Your task to perform on an android device: turn off airplane mode Image 0: 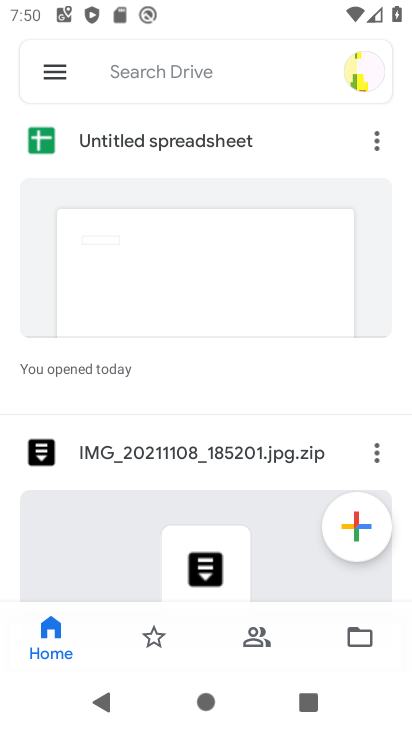
Step 0: press home button
Your task to perform on an android device: turn off airplane mode Image 1: 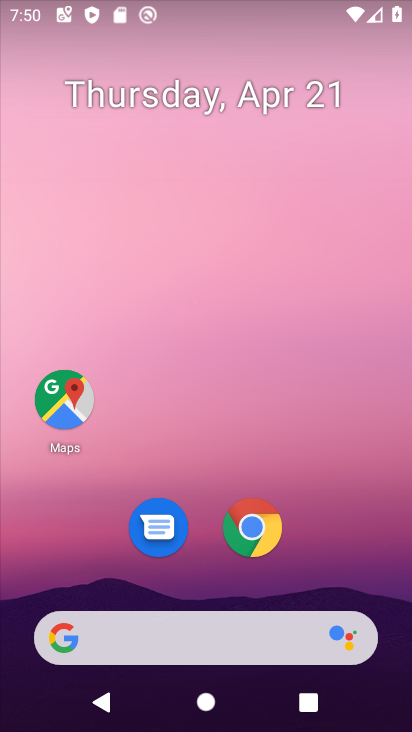
Step 1: drag from (203, 597) to (207, 534)
Your task to perform on an android device: turn off airplane mode Image 2: 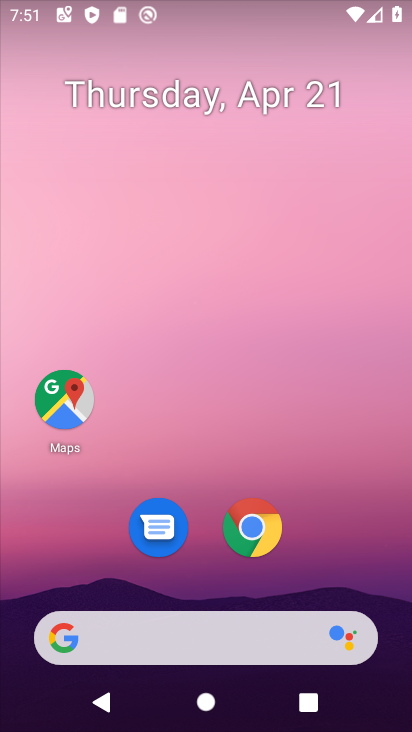
Step 2: drag from (216, 607) to (340, 120)
Your task to perform on an android device: turn off airplane mode Image 3: 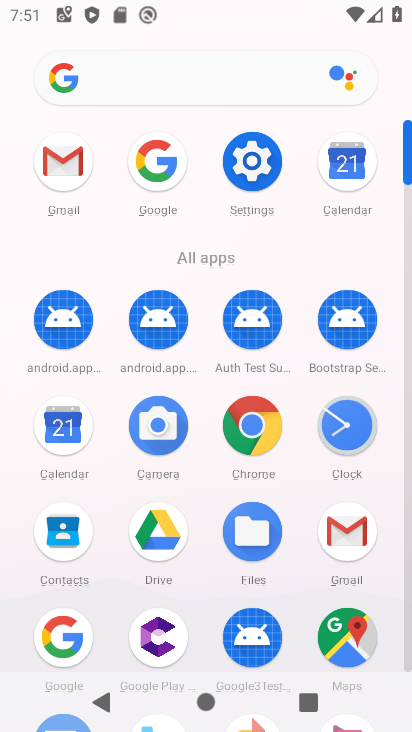
Step 3: click (245, 179)
Your task to perform on an android device: turn off airplane mode Image 4: 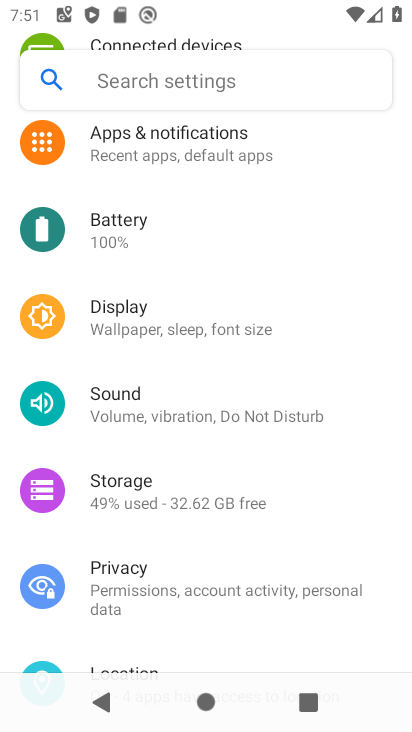
Step 4: drag from (264, 167) to (281, 458)
Your task to perform on an android device: turn off airplane mode Image 5: 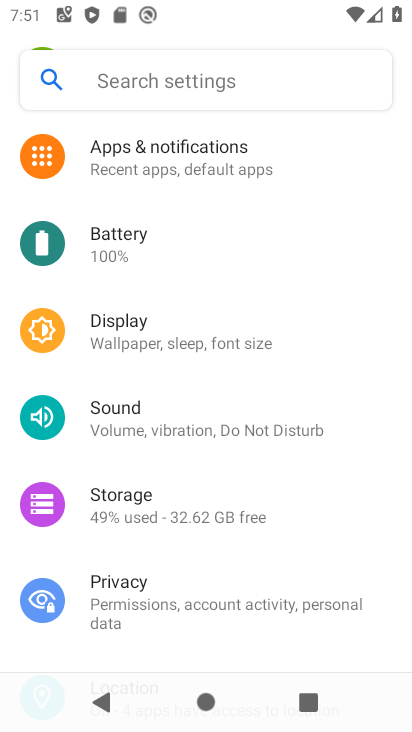
Step 5: drag from (334, 171) to (344, 276)
Your task to perform on an android device: turn off airplane mode Image 6: 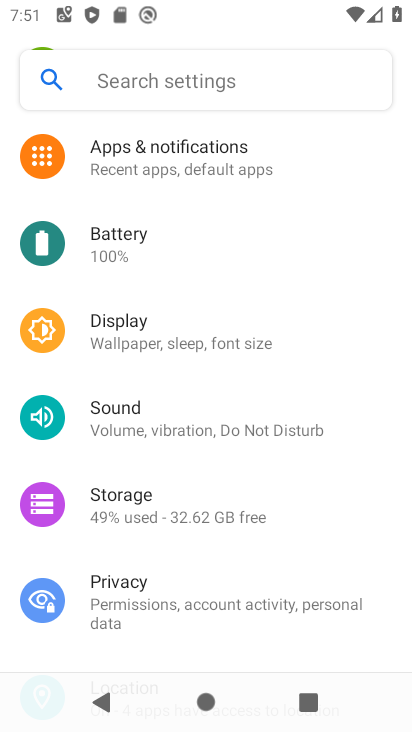
Step 6: drag from (333, 200) to (282, 731)
Your task to perform on an android device: turn off airplane mode Image 7: 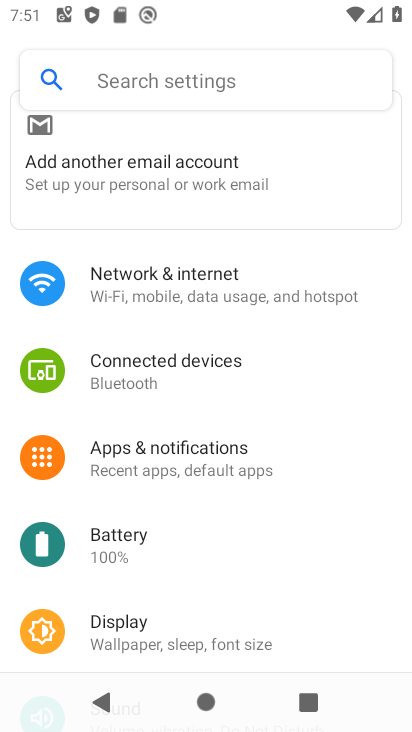
Step 7: drag from (316, 258) to (311, 729)
Your task to perform on an android device: turn off airplane mode Image 8: 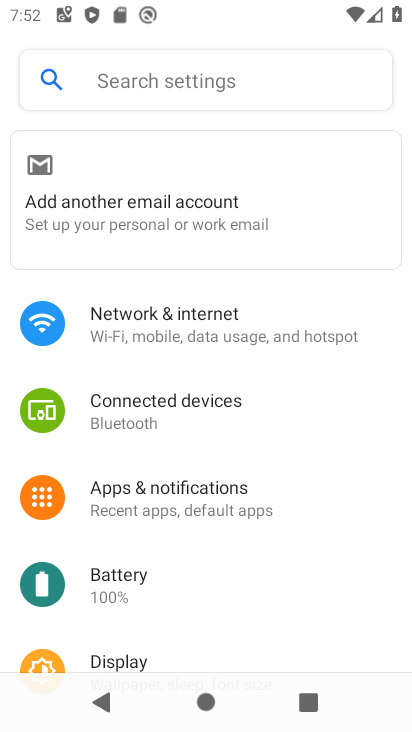
Step 8: click (285, 361)
Your task to perform on an android device: turn off airplane mode Image 9: 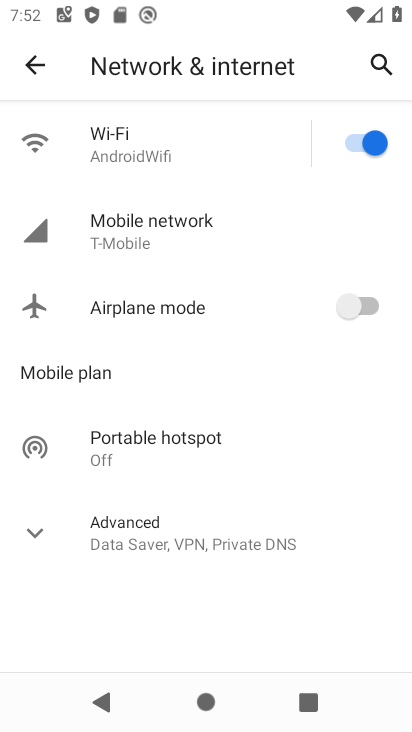
Step 9: task complete